Your task to perform on an android device: Search for Mexican restaurants on Maps Image 0: 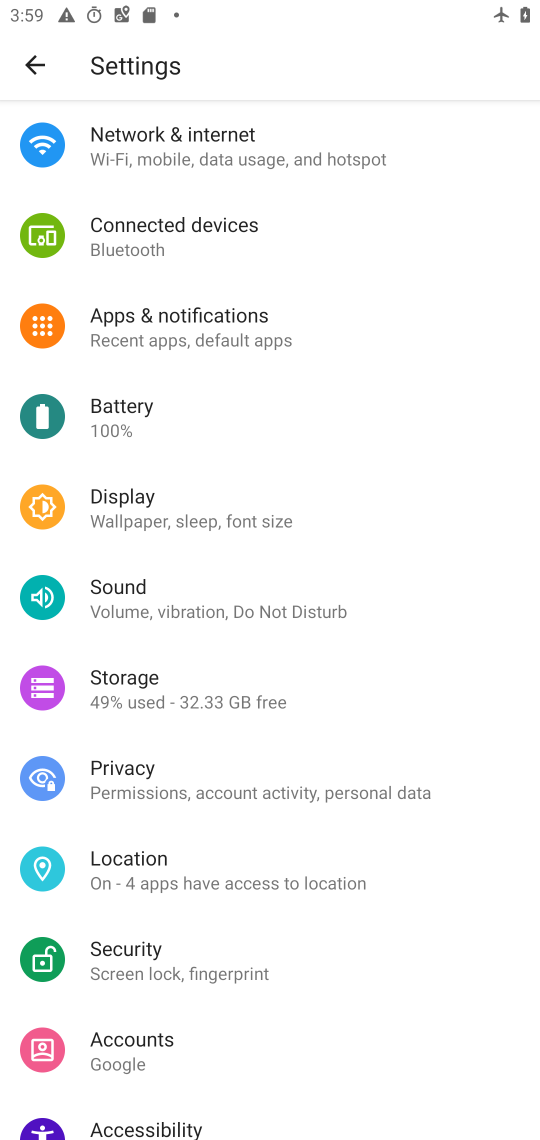
Step 0: press home button
Your task to perform on an android device: Search for Mexican restaurants on Maps Image 1: 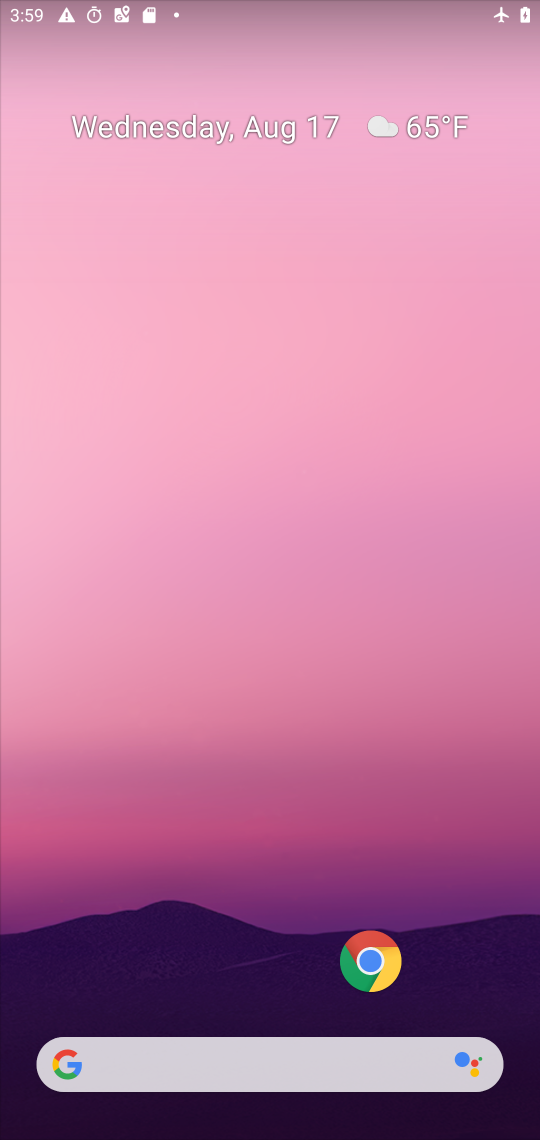
Step 1: drag from (313, 1009) to (181, 98)
Your task to perform on an android device: Search for Mexican restaurants on Maps Image 2: 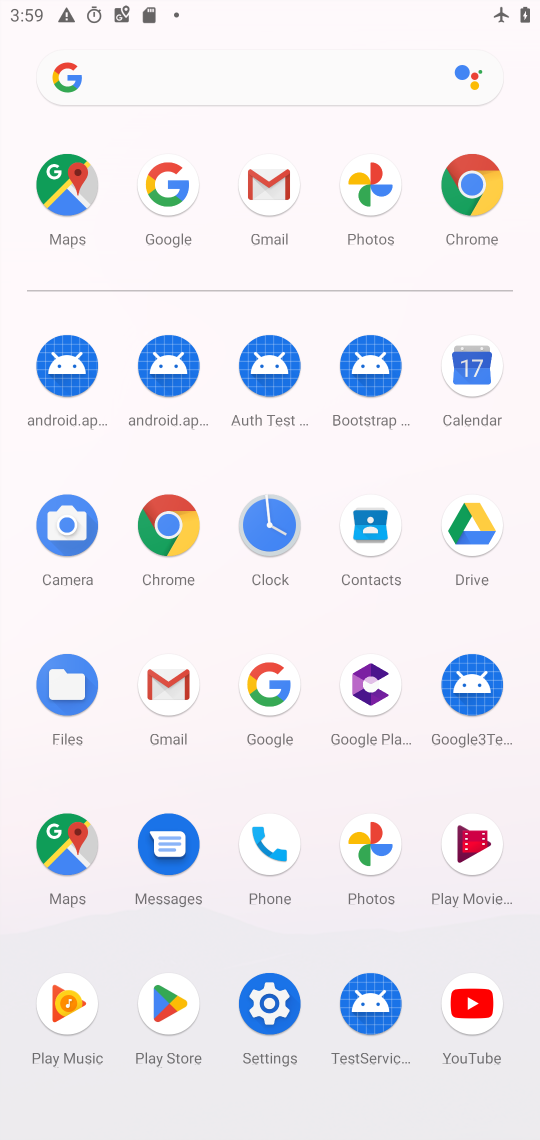
Step 2: click (477, 198)
Your task to perform on an android device: Search for Mexican restaurants on Maps Image 3: 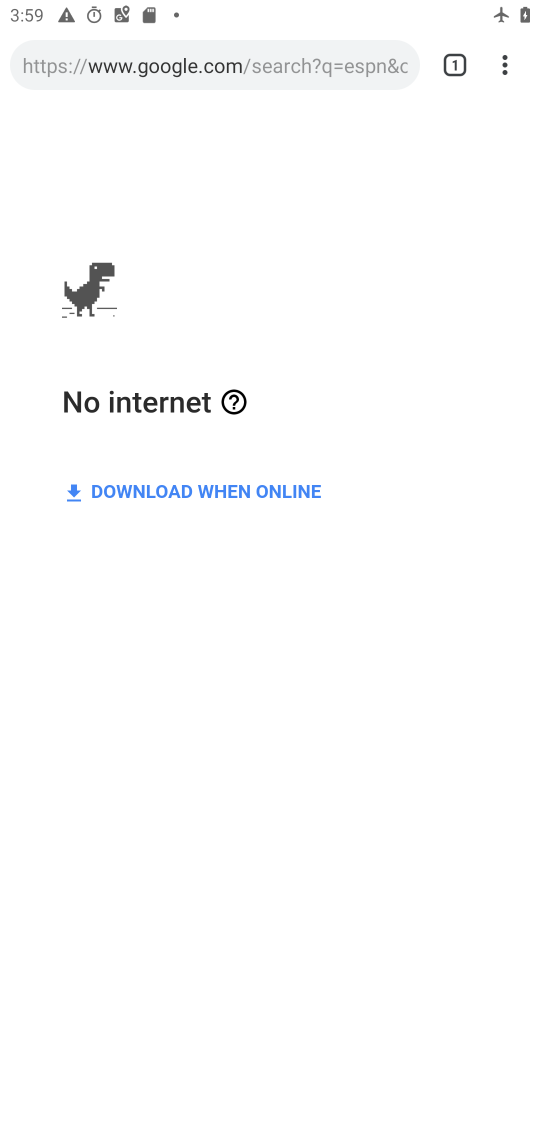
Step 3: press home button
Your task to perform on an android device: Search for Mexican restaurants on Maps Image 4: 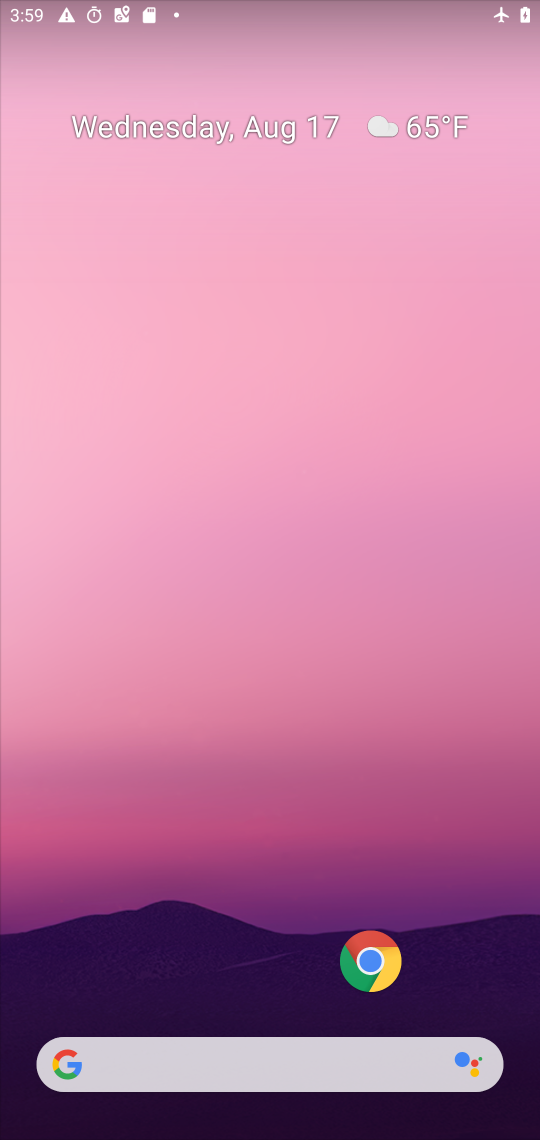
Step 4: drag from (364, 941) to (368, 384)
Your task to perform on an android device: Search for Mexican restaurants on Maps Image 5: 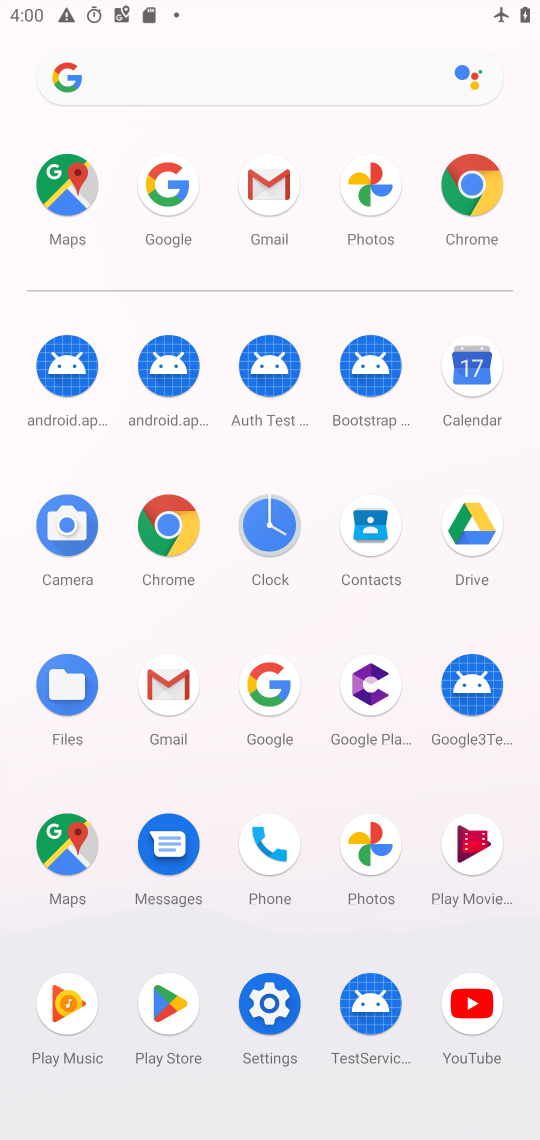
Step 5: click (86, 842)
Your task to perform on an android device: Search for Mexican restaurants on Maps Image 6: 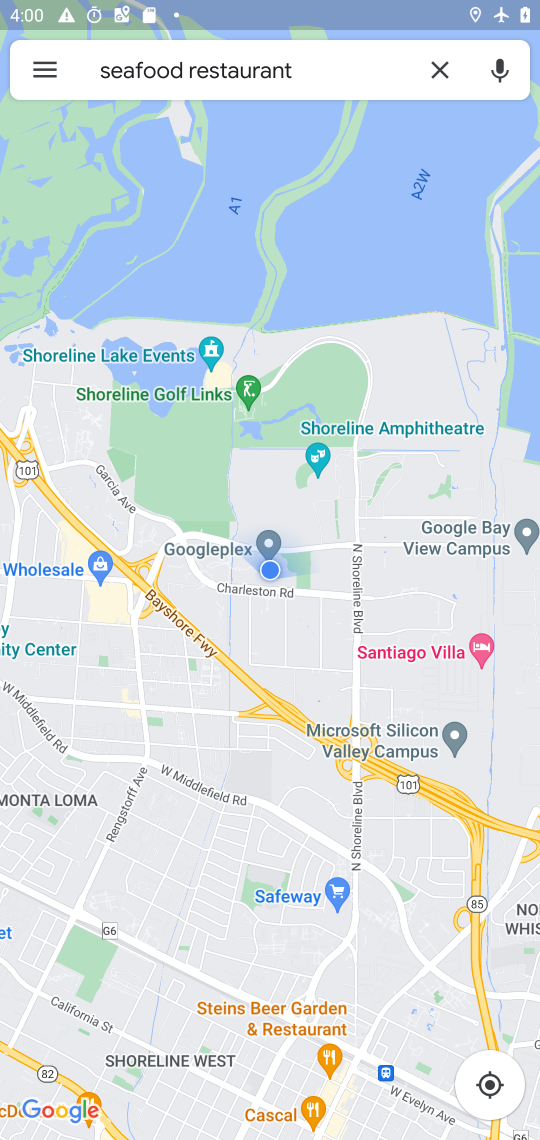
Step 6: click (437, 64)
Your task to perform on an android device: Search for Mexican restaurants on Maps Image 7: 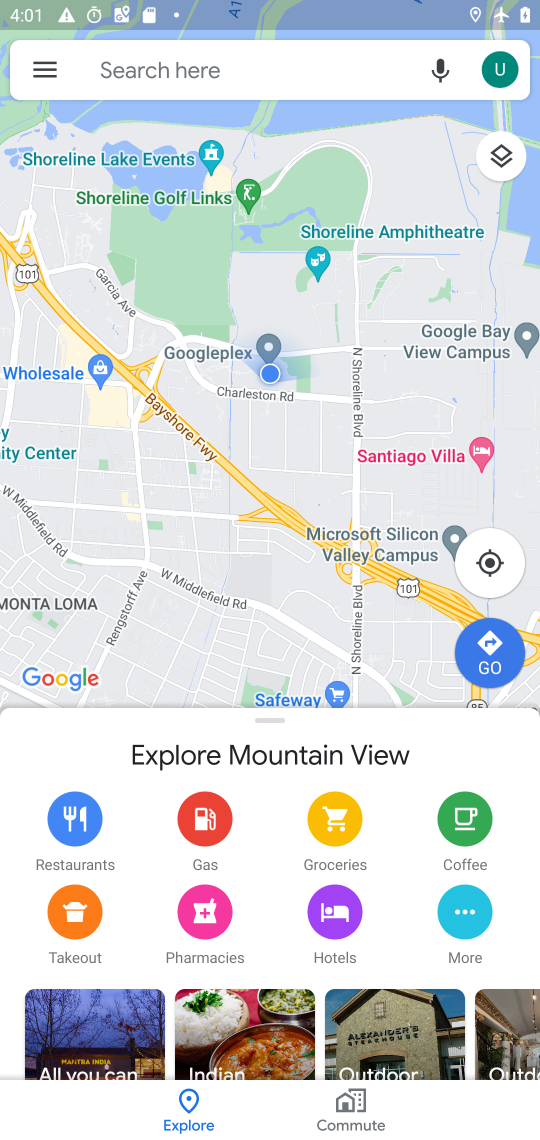
Step 7: click (197, 73)
Your task to perform on an android device: Search for Mexican restaurants on Maps Image 8: 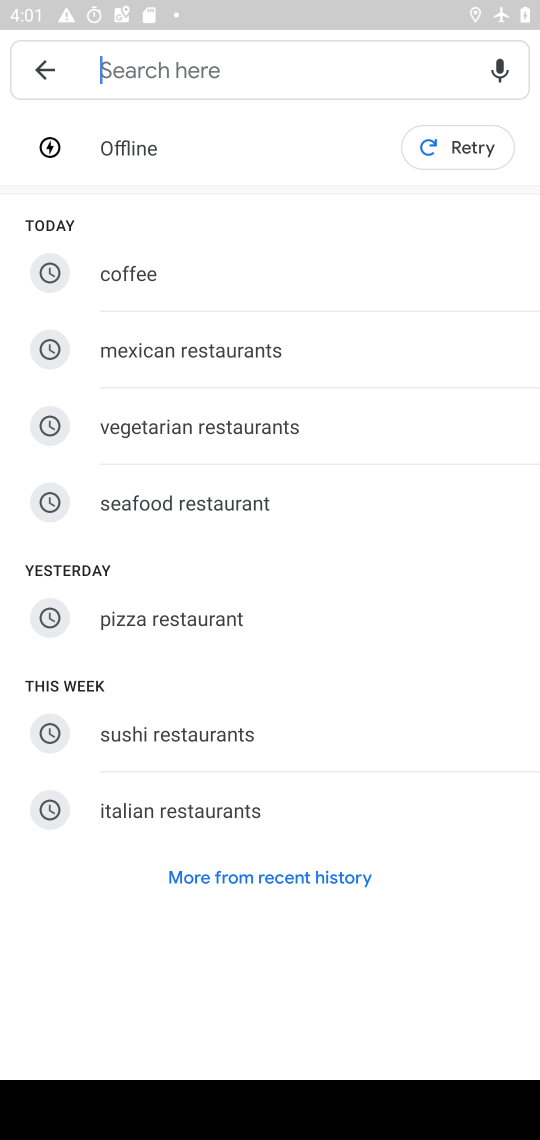
Step 8: click (204, 351)
Your task to perform on an android device: Search for Mexican restaurants on Maps Image 9: 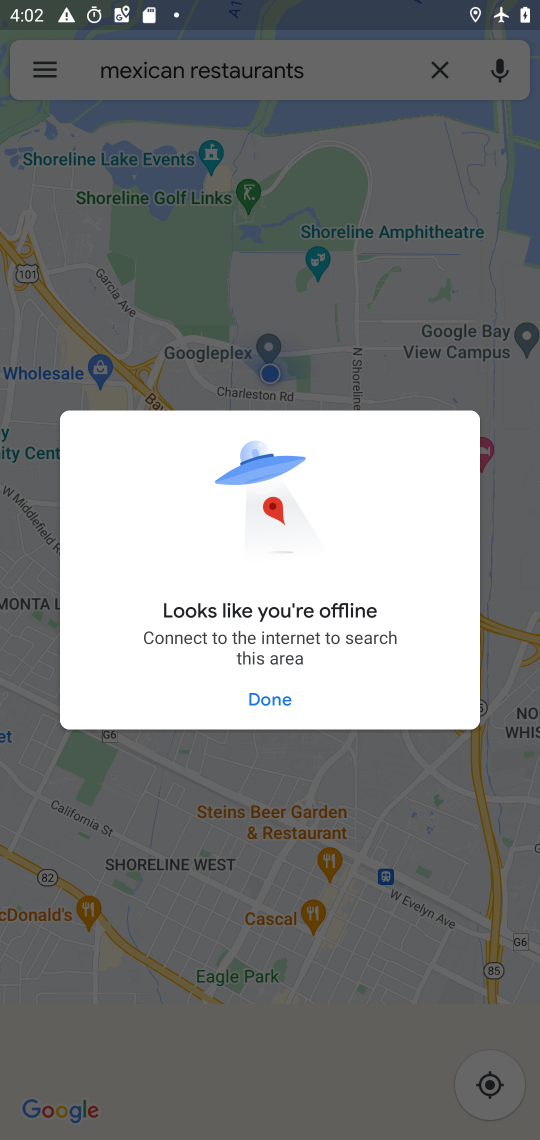
Step 9: click (262, 707)
Your task to perform on an android device: Search for Mexican restaurants on Maps Image 10: 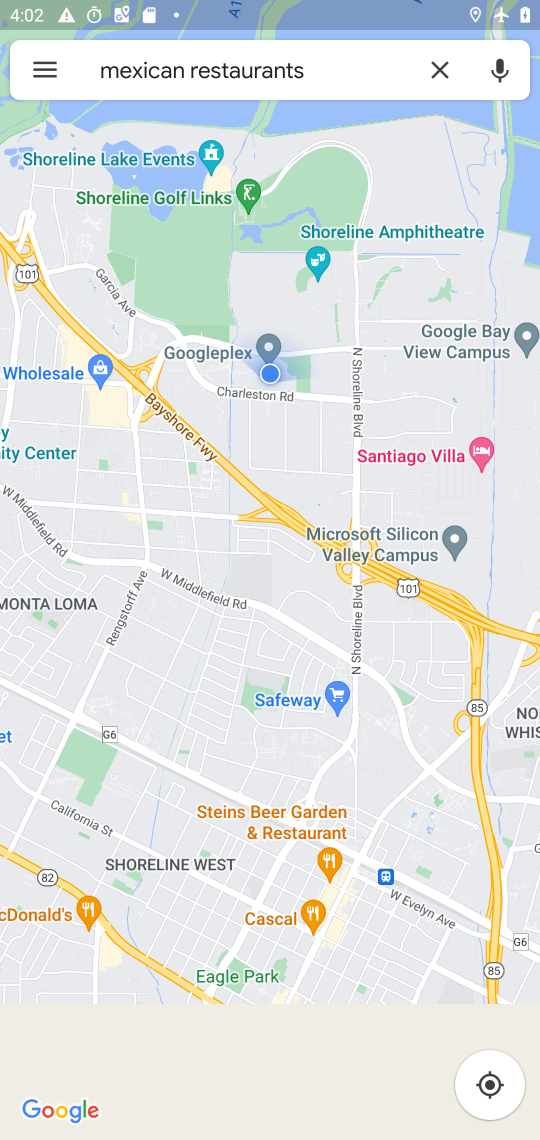
Step 10: task complete